Your task to perform on an android device: When is my next appointment? Image 0: 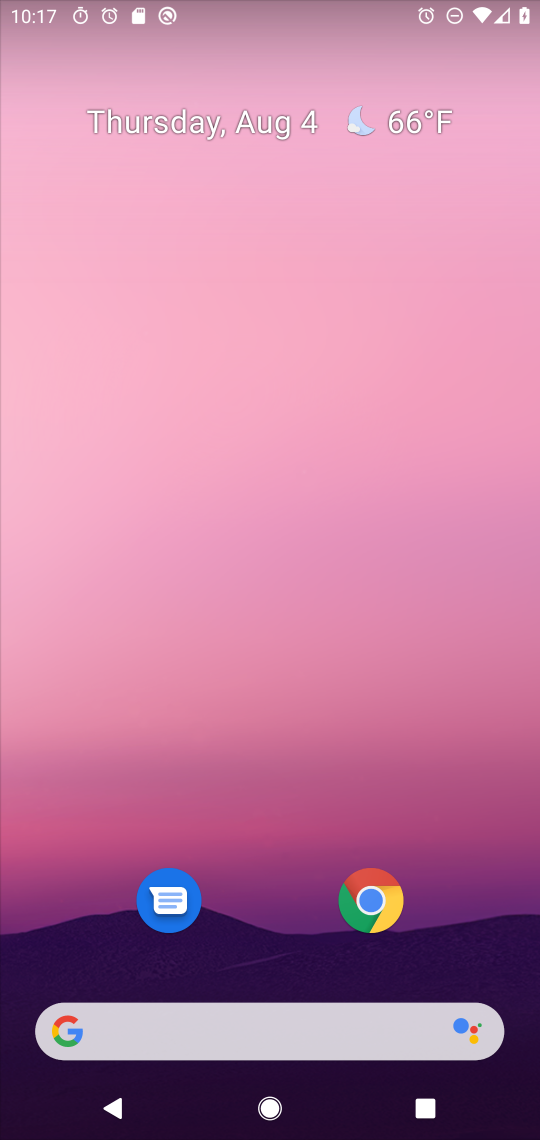
Step 0: drag from (234, 1042) to (240, 145)
Your task to perform on an android device: When is my next appointment? Image 1: 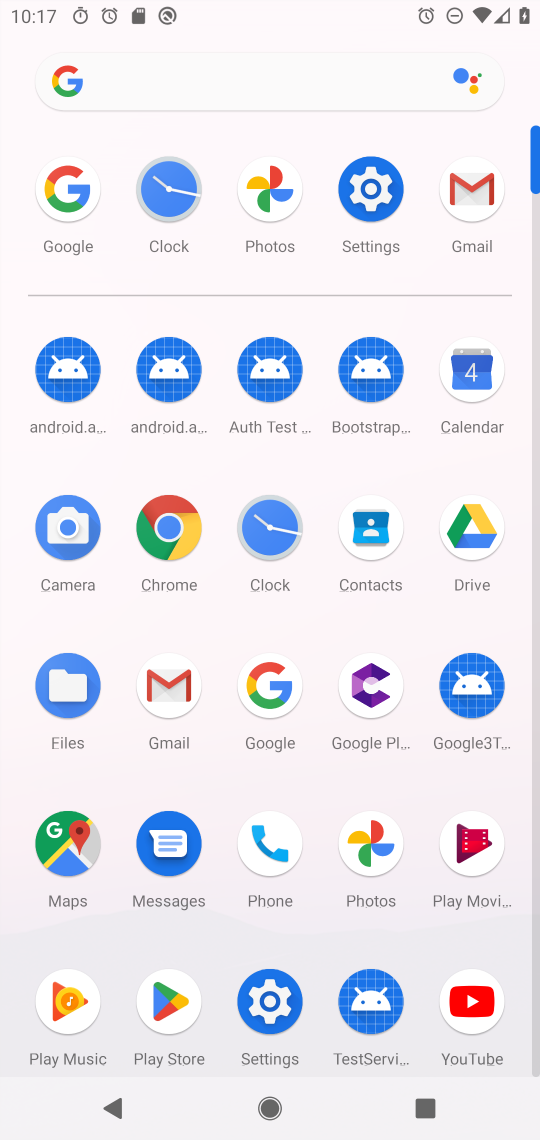
Step 1: click (476, 372)
Your task to perform on an android device: When is my next appointment? Image 2: 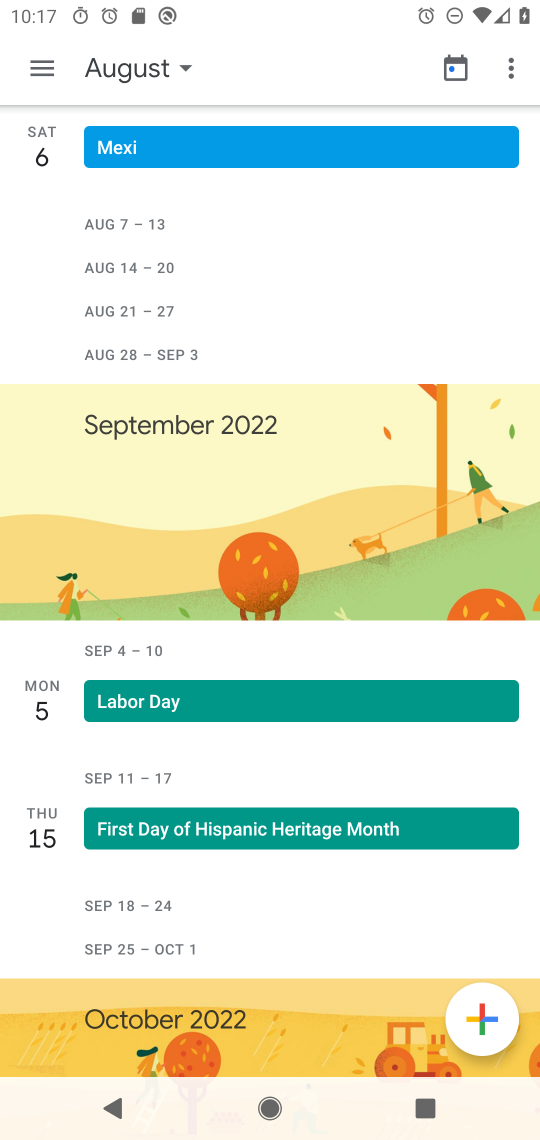
Step 2: click (453, 67)
Your task to perform on an android device: When is my next appointment? Image 3: 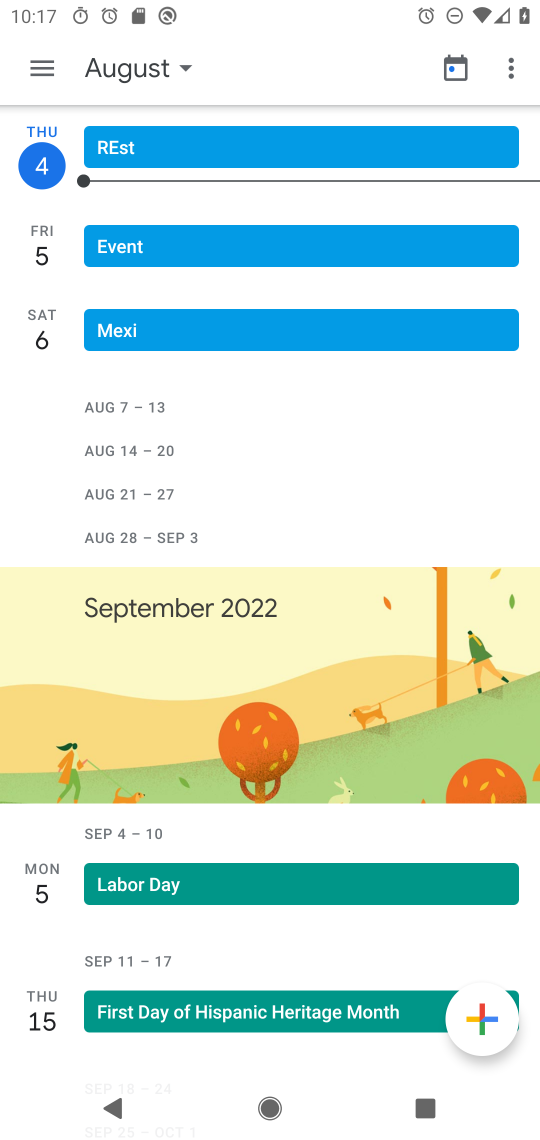
Step 3: click (188, 62)
Your task to perform on an android device: When is my next appointment? Image 4: 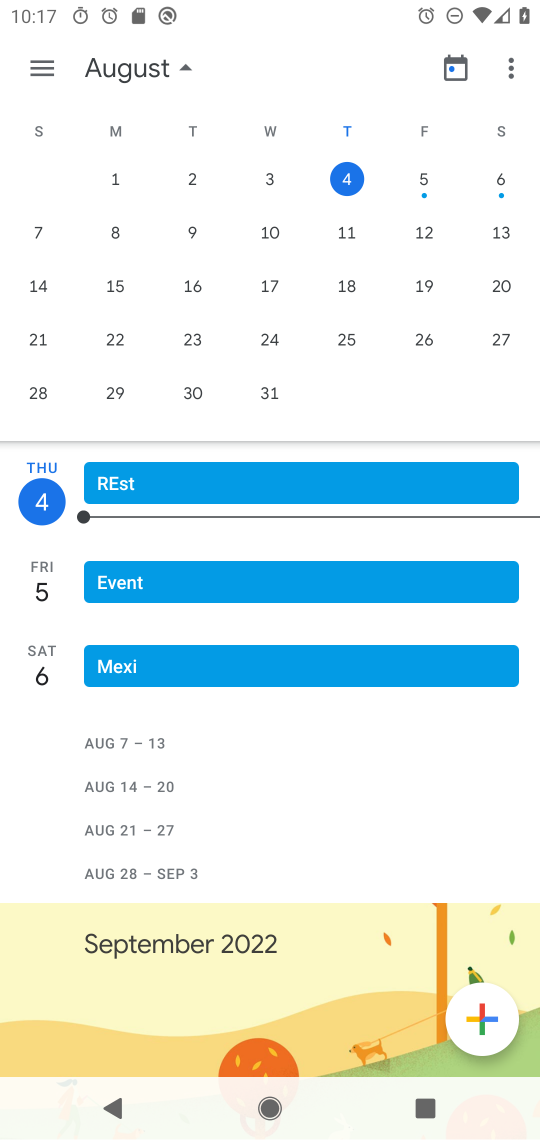
Step 4: click (496, 171)
Your task to perform on an android device: When is my next appointment? Image 5: 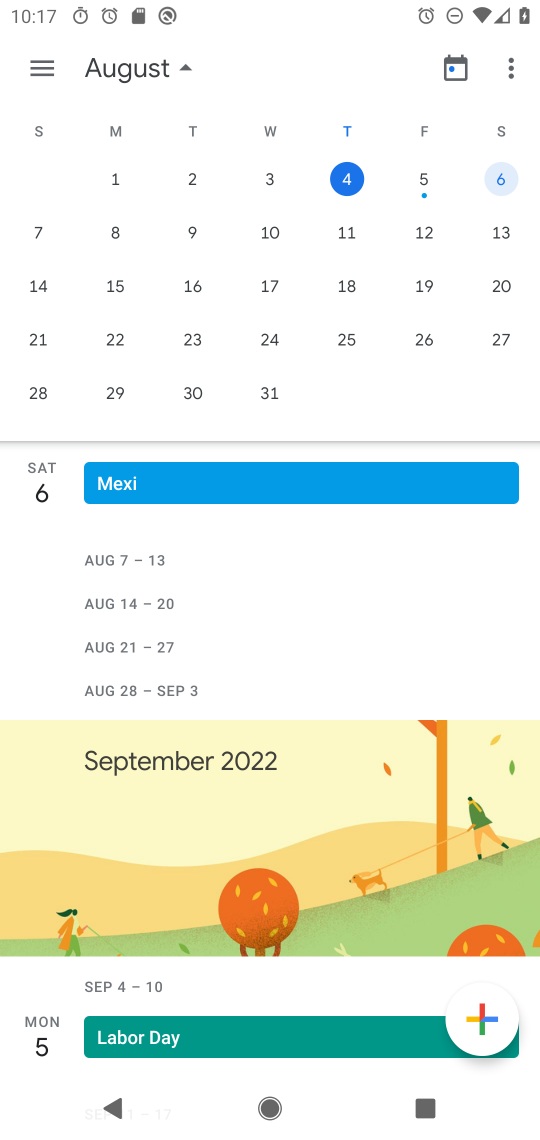
Step 5: click (46, 67)
Your task to perform on an android device: When is my next appointment? Image 6: 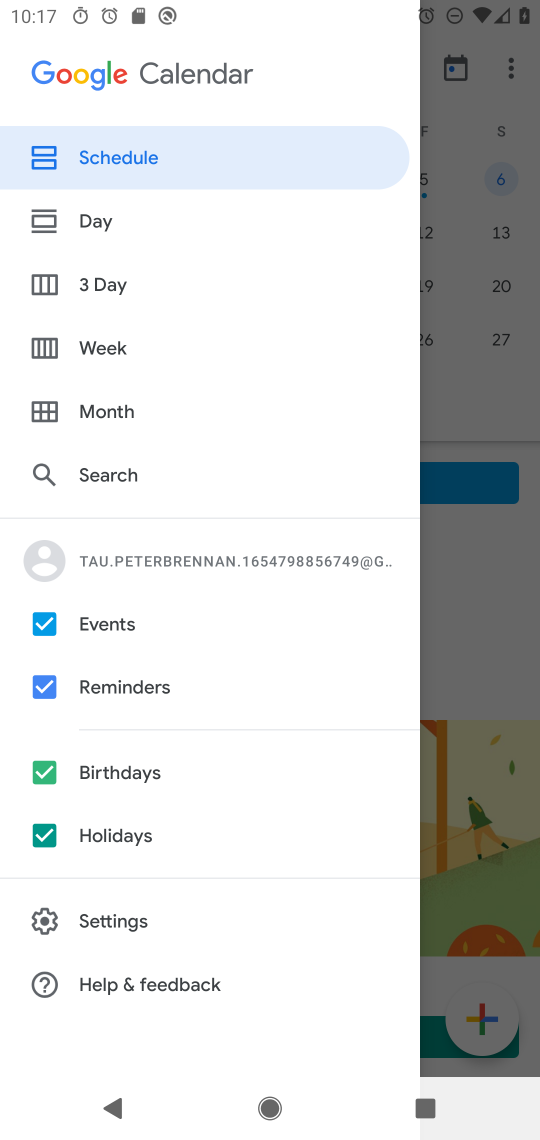
Step 6: click (130, 166)
Your task to perform on an android device: When is my next appointment? Image 7: 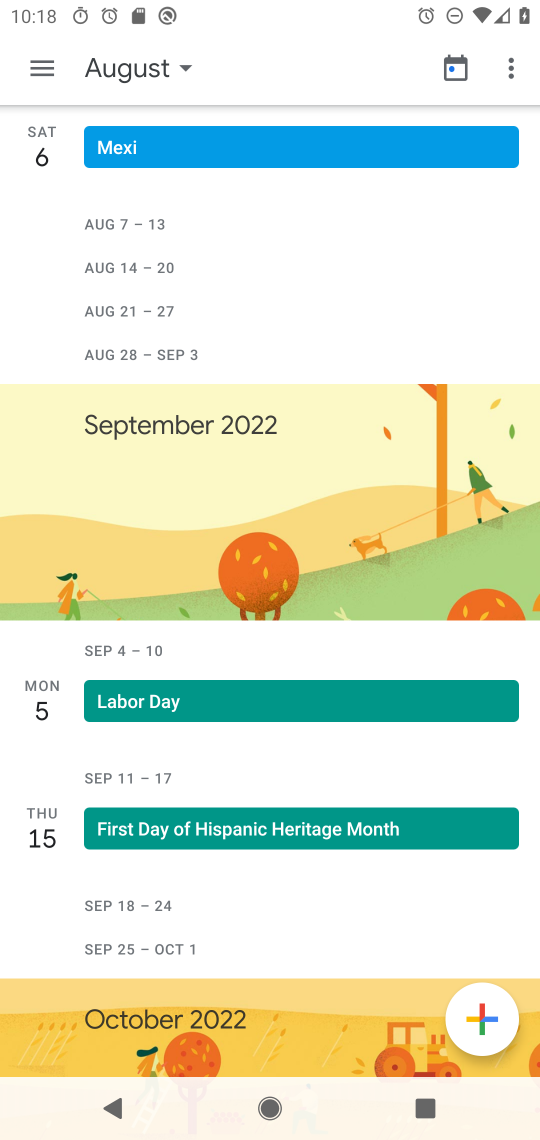
Step 7: task complete